Your task to perform on an android device: Clear the cart on ebay.com. Image 0: 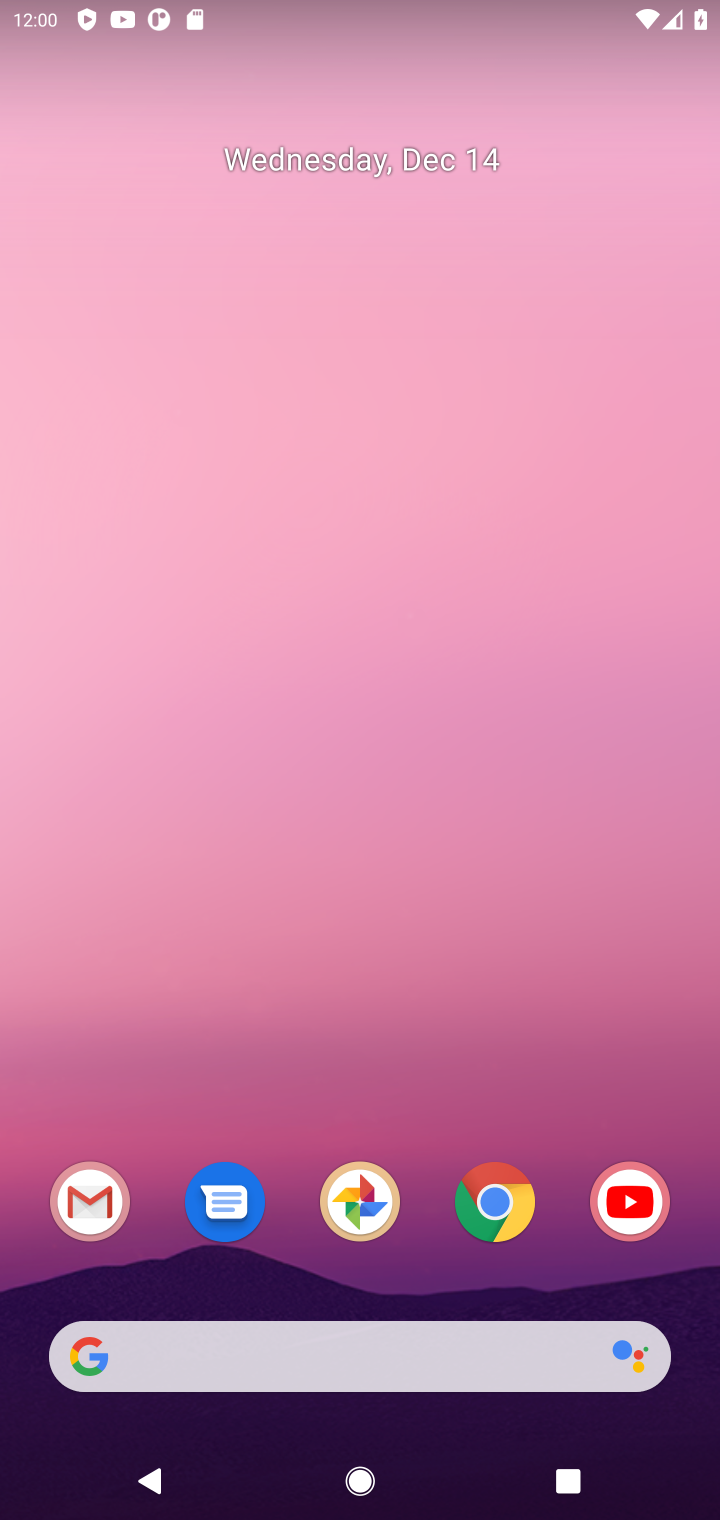
Step 0: click (491, 1200)
Your task to perform on an android device: Clear the cart on ebay.com. Image 1: 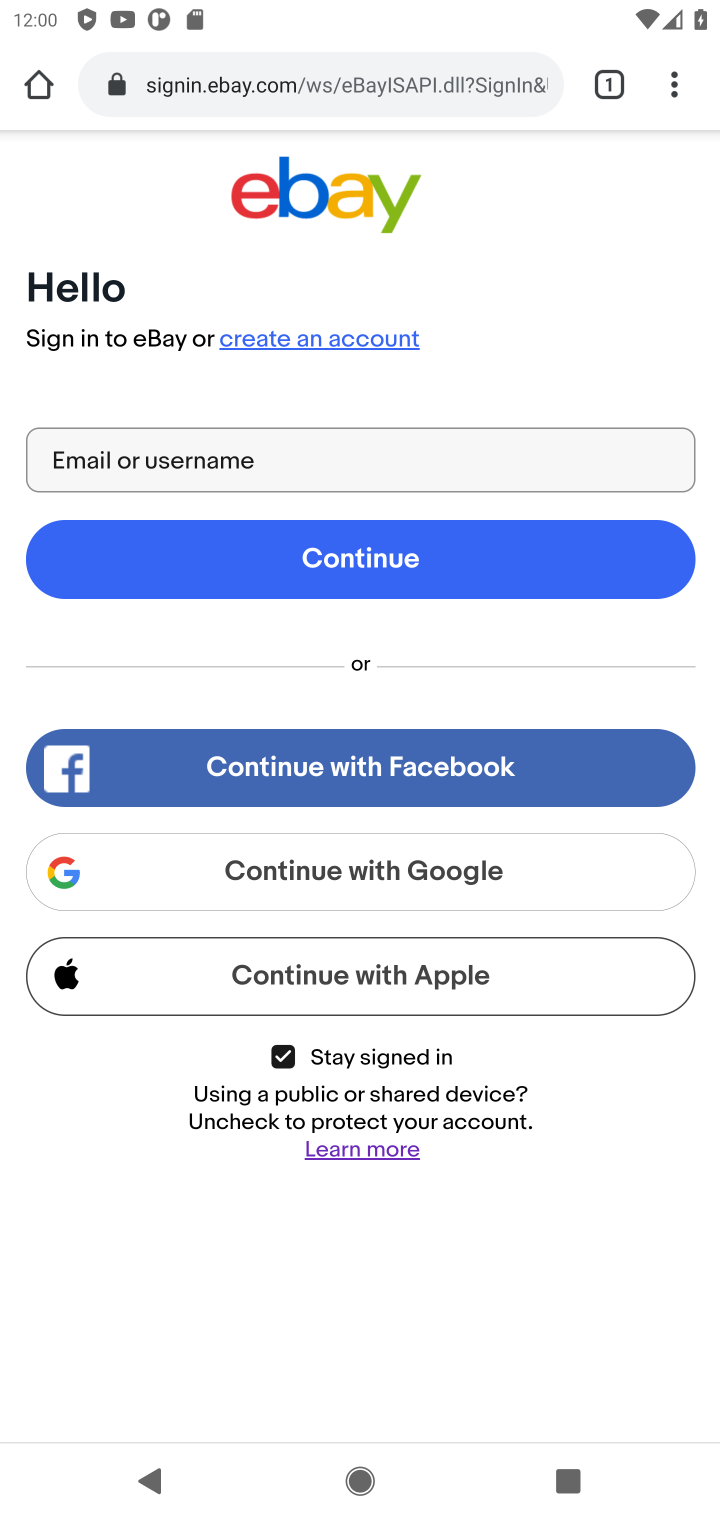
Step 1: click (295, 189)
Your task to perform on an android device: Clear the cart on ebay.com. Image 2: 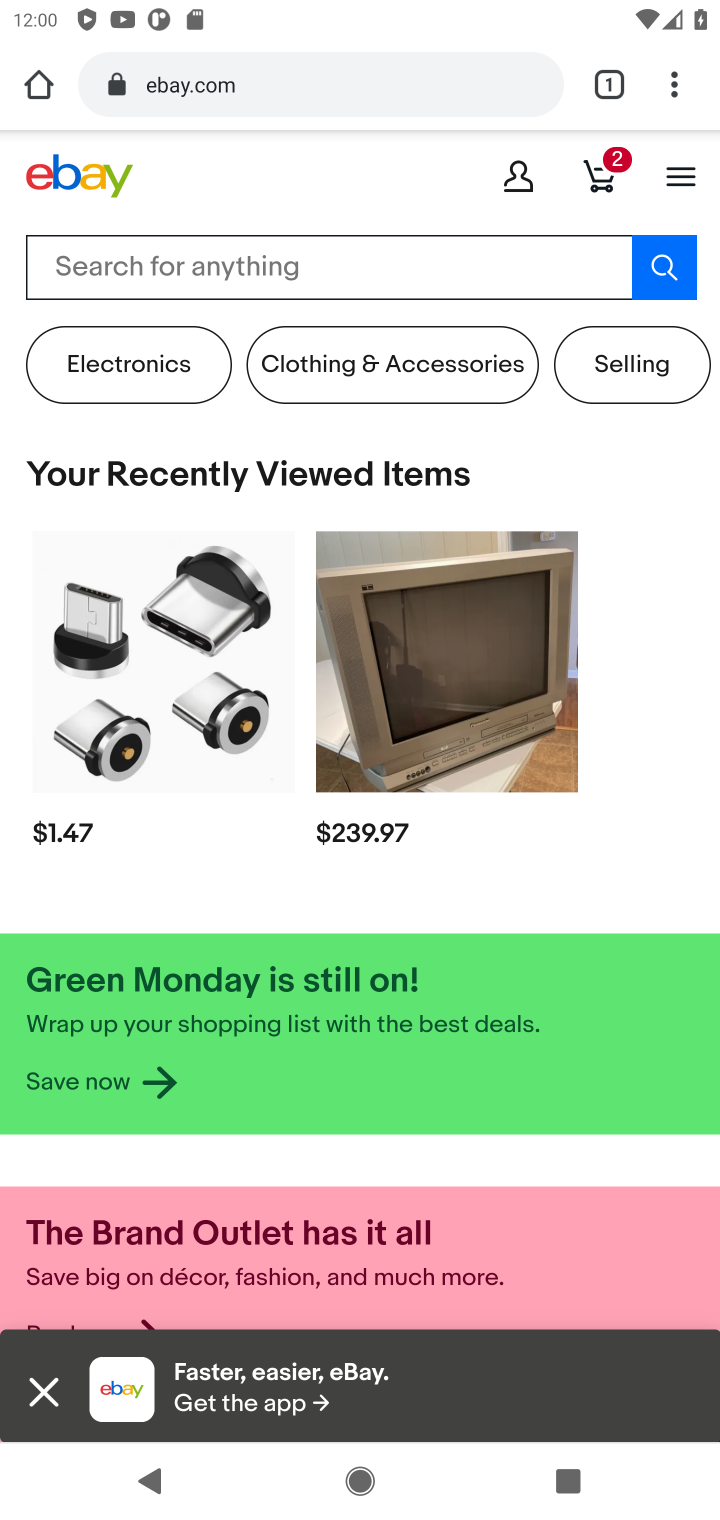
Step 2: click (593, 174)
Your task to perform on an android device: Clear the cart on ebay.com. Image 3: 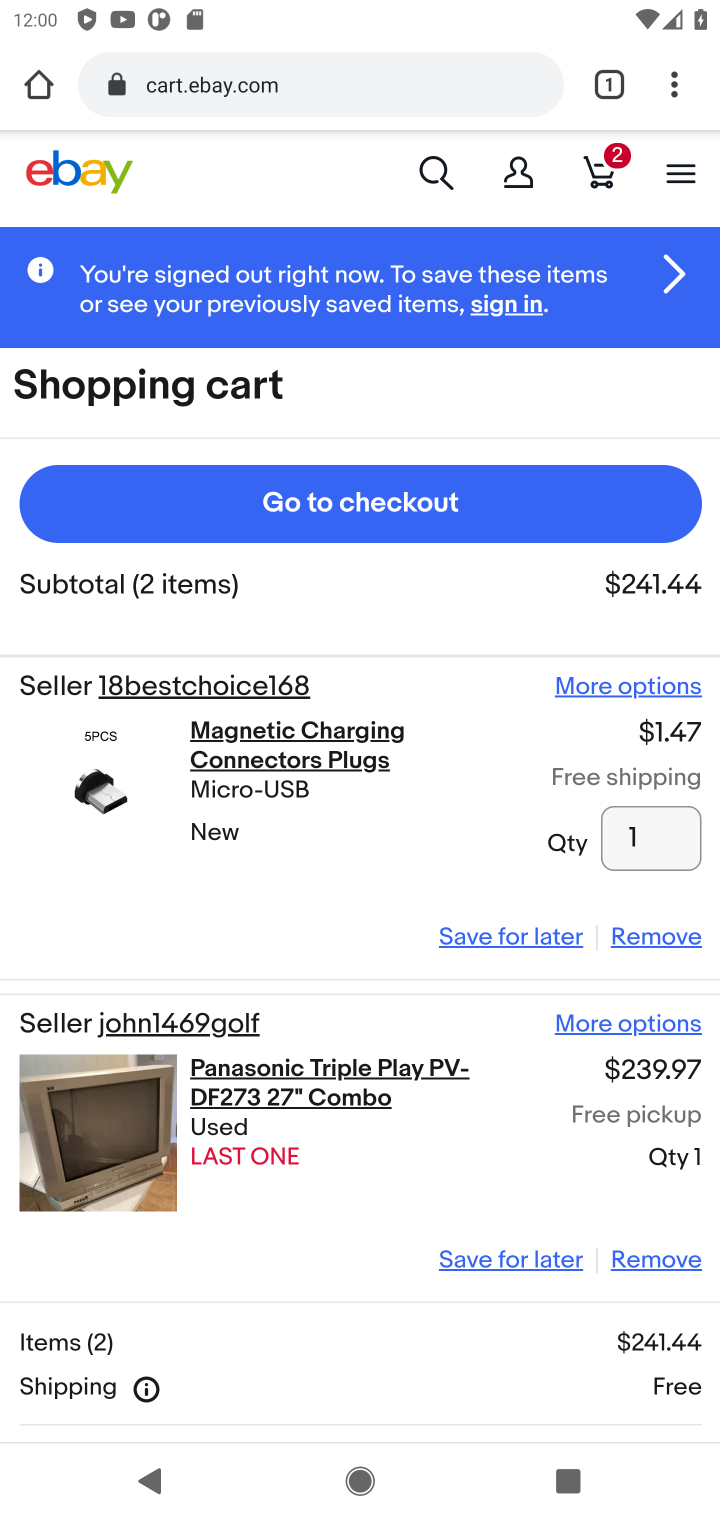
Step 3: click (644, 935)
Your task to perform on an android device: Clear the cart on ebay.com. Image 4: 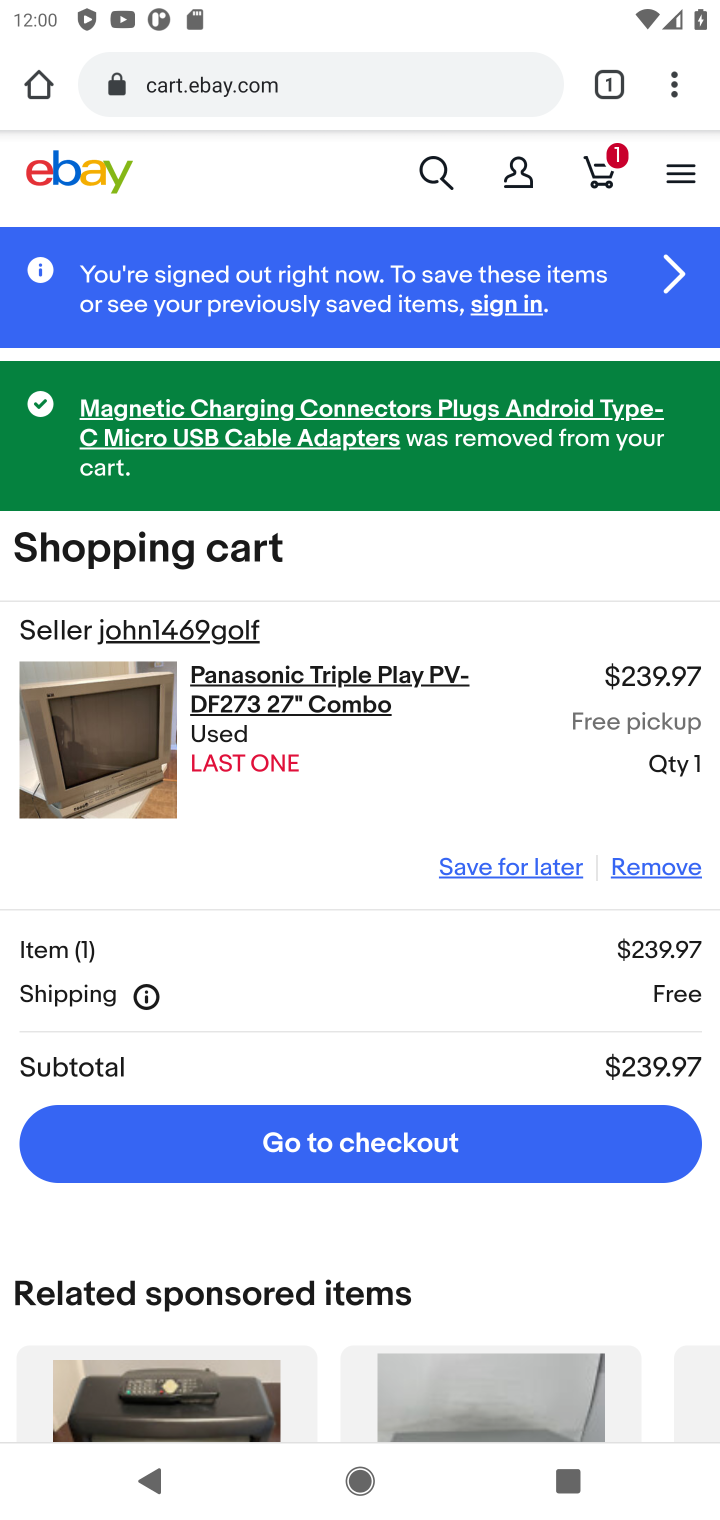
Step 4: click (645, 873)
Your task to perform on an android device: Clear the cart on ebay.com. Image 5: 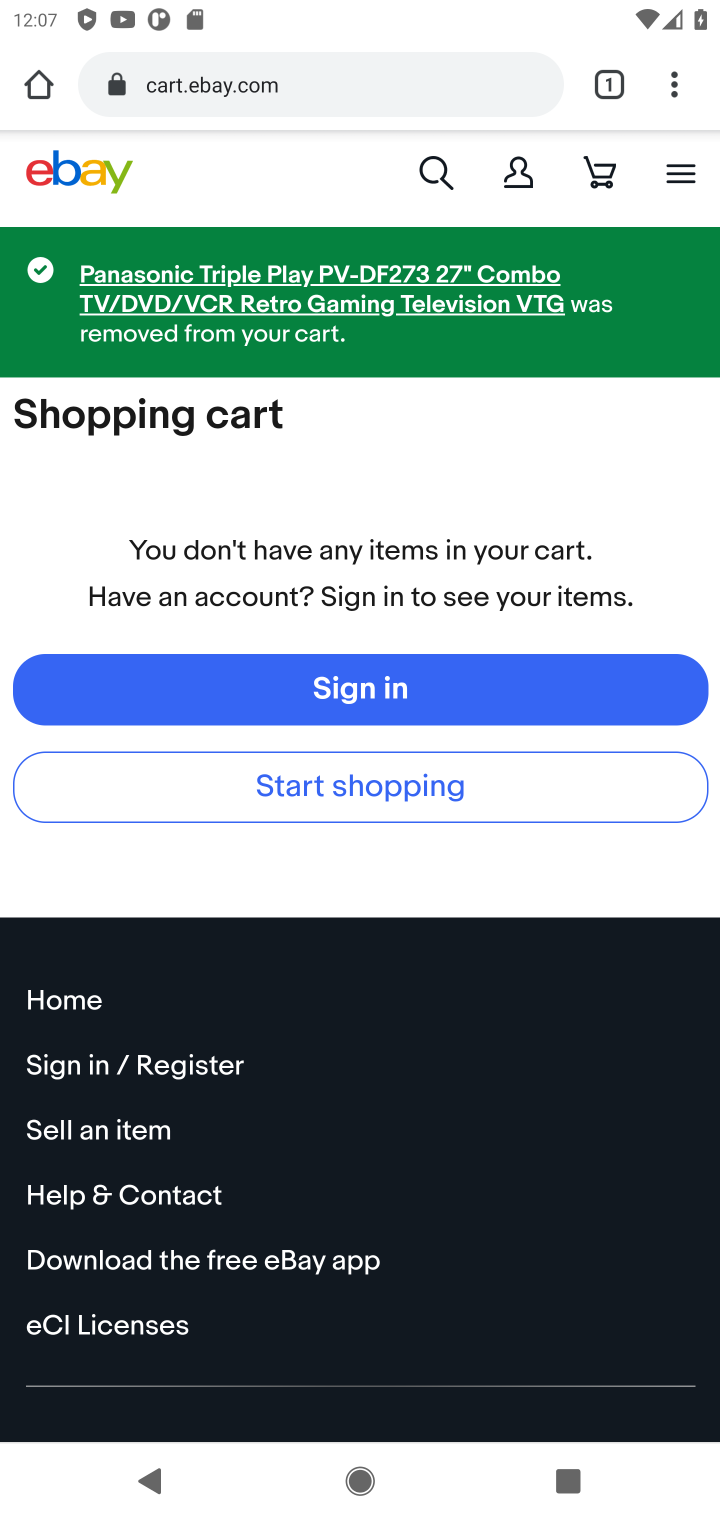
Step 5: task complete